Your task to perform on an android device: Open Google Image 0: 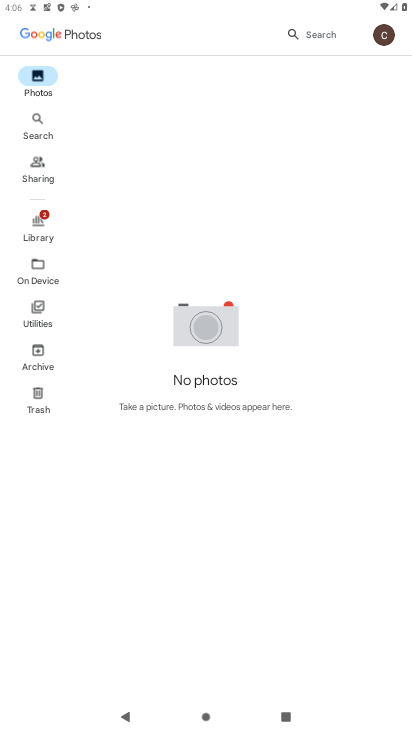
Step 0: press home button
Your task to perform on an android device: Open Google Image 1: 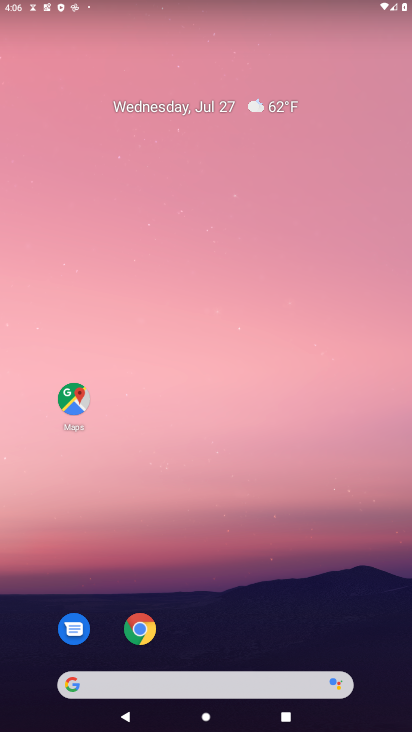
Step 1: drag from (196, 688) to (218, 151)
Your task to perform on an android device: Open Google Image 2: 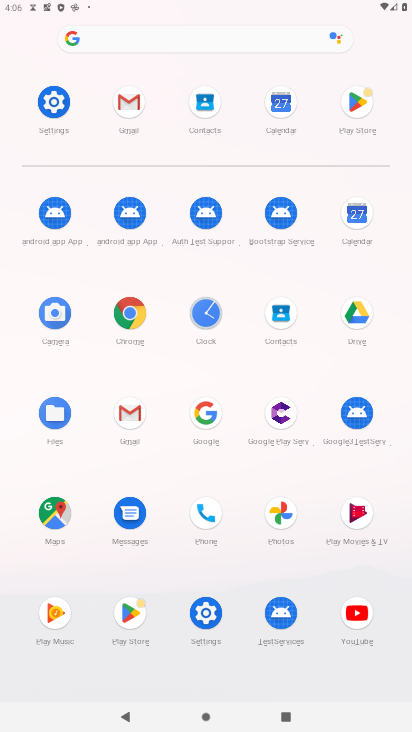
Step 2: click (203, 411)
Your task to perform on an android device: Open Google Image 3: 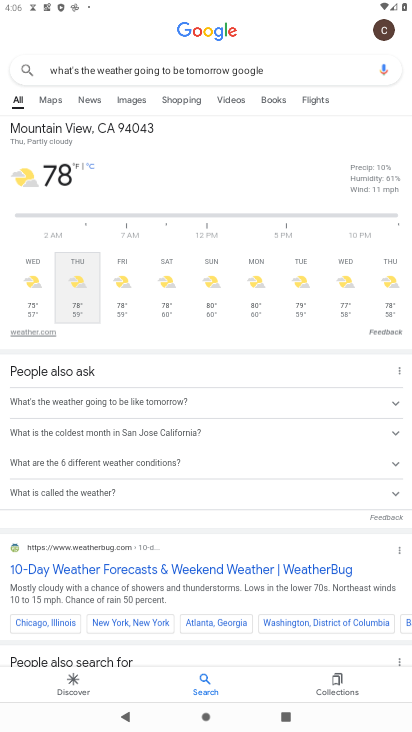
Step 3: task complete